Your task to perform on an android device: Open accessibility settings Image 0: 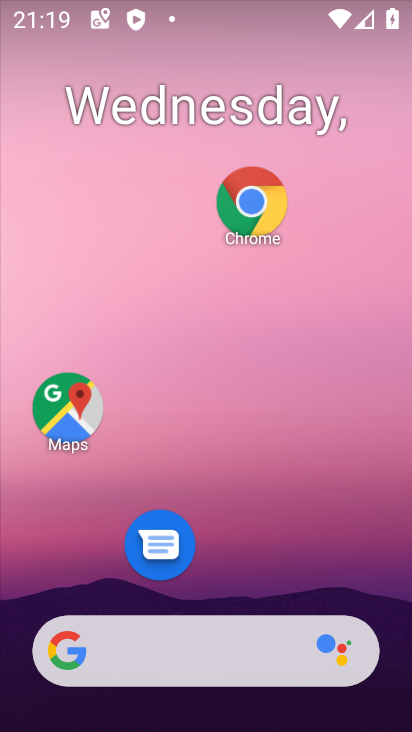
Step 0: drag from (220, 612) to (134, 125)
Your task to perform on an android device: Open accessibility settings Image 1: 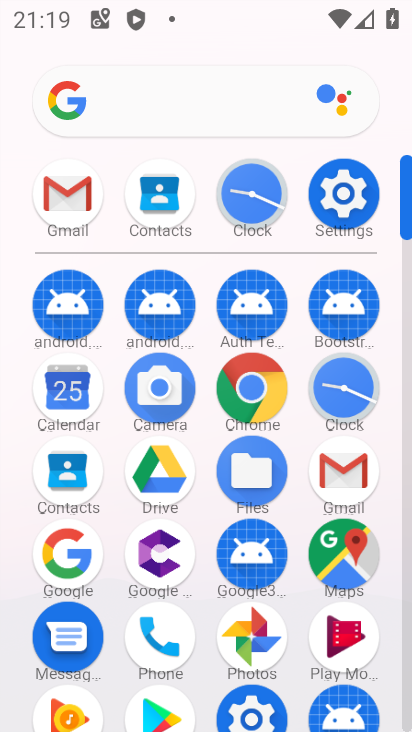
Step 1: click (201, 168)
Your task to perform on an android device: Open accessibility settings Image 2: 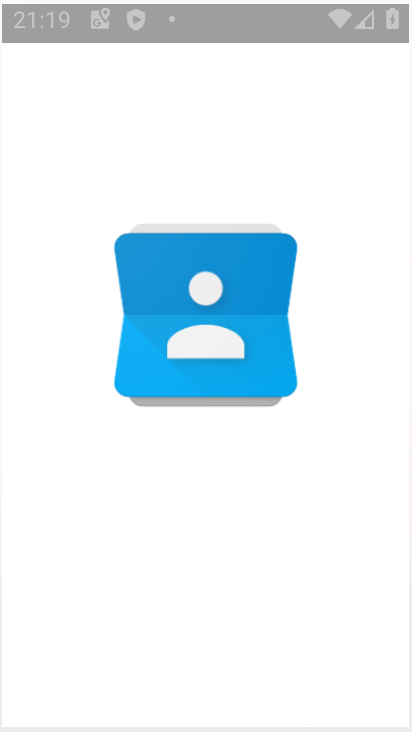
Step 2: drag from (233, 511) to (211, 218)
Your task to perform on an android device: Open accessibility settings Image 3: 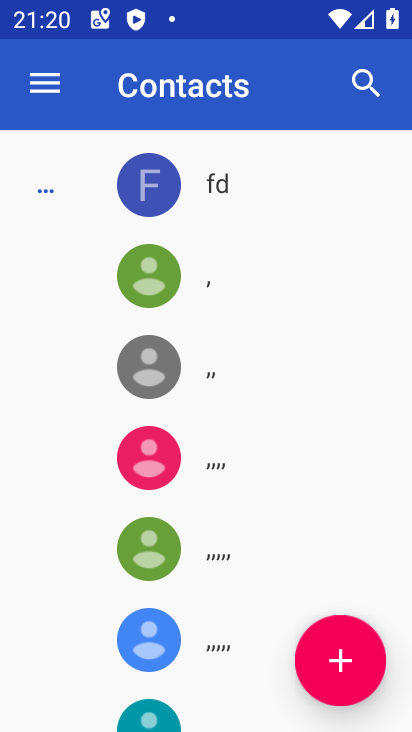
Step 3: press home button
Your task to perform on an android device: Open accessibility settings Image 4: 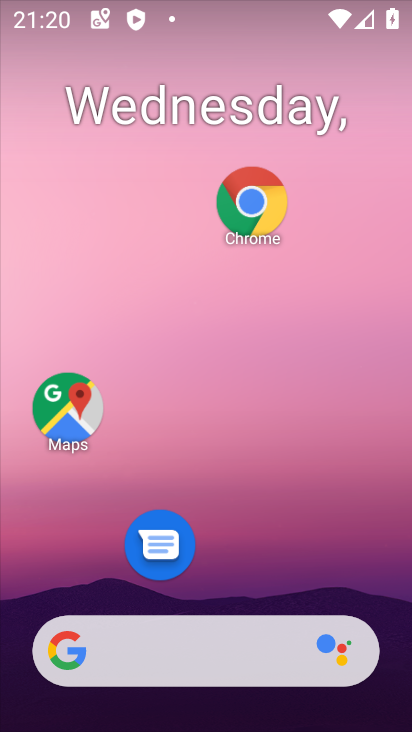
Step 4: drag from (242, 602) to (255, 85)
Your task to perform on an android device: Open accessibility settings Image 5: 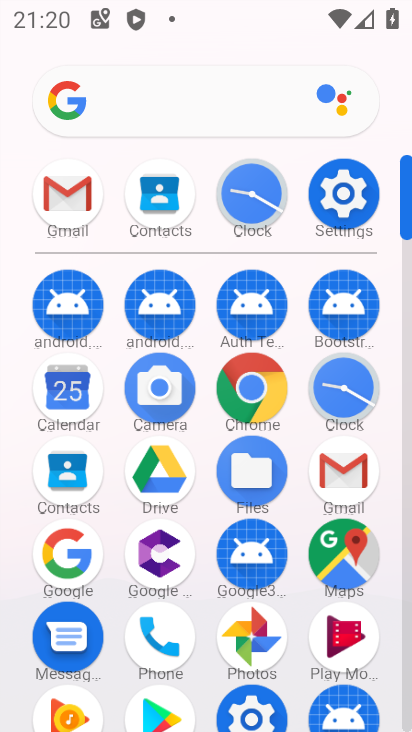
Step 5: click (358, 188)
Your task to perform on an android device: Open accessibility settings Image 6: 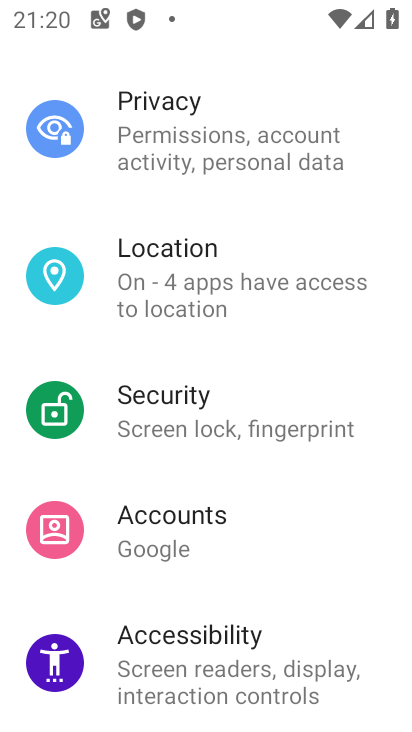
Step 6: click (161, 659)
Your task to perform on an android device: Open accessibility settings Image 7: 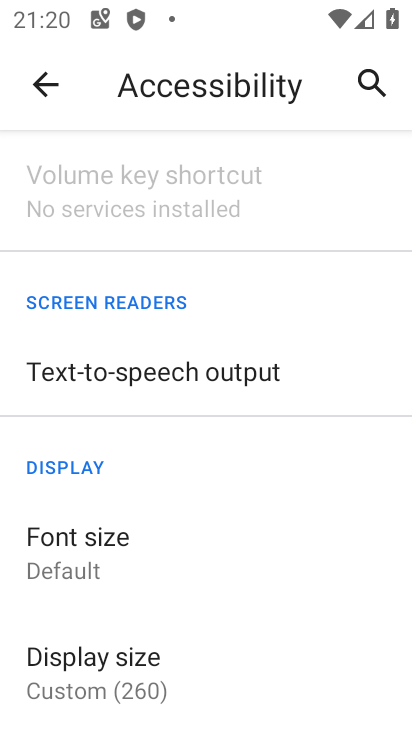
Step 7: task complete